Your task to perform on an android device: What is the capital of Spain? Image 0: 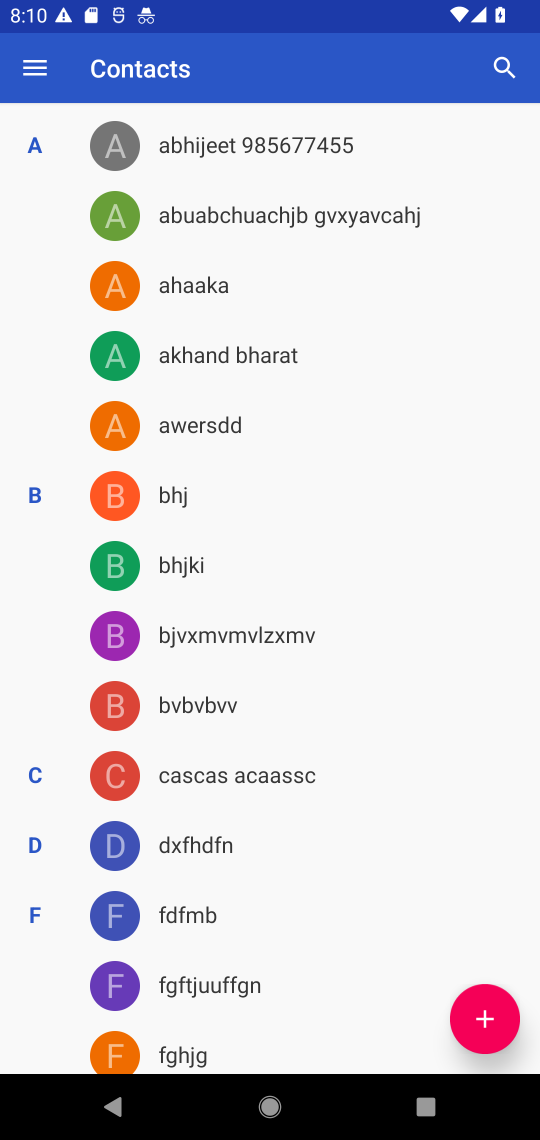
Step 0: press home button
Your task to perform on an android device: What is the capital of Spain? Image 1: 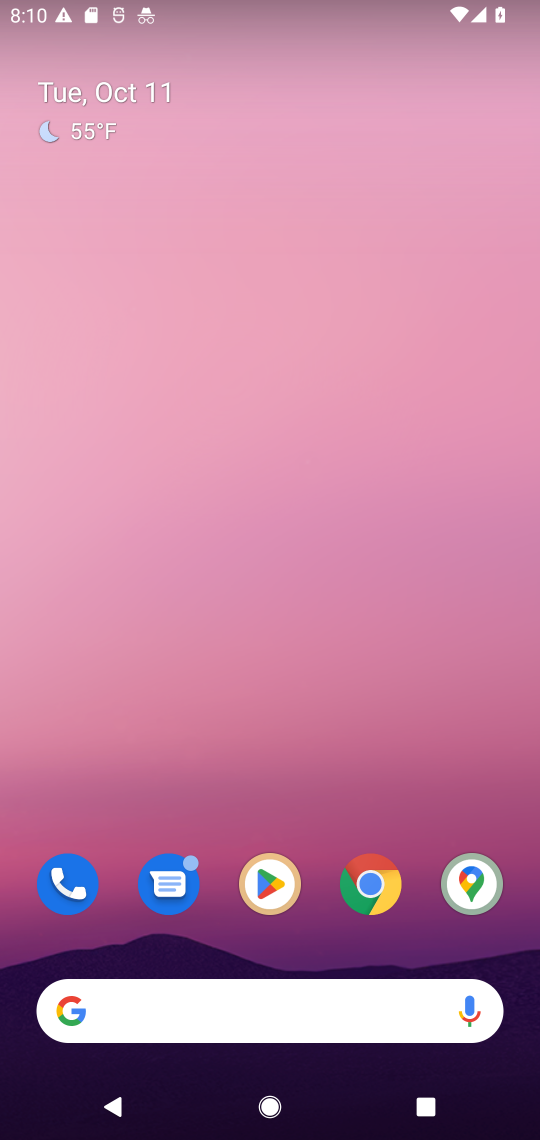
Step 1: drag from (309, 968) to (324, 75)
Your task to perform on an android device: What is the capital of Spain? Image 2: 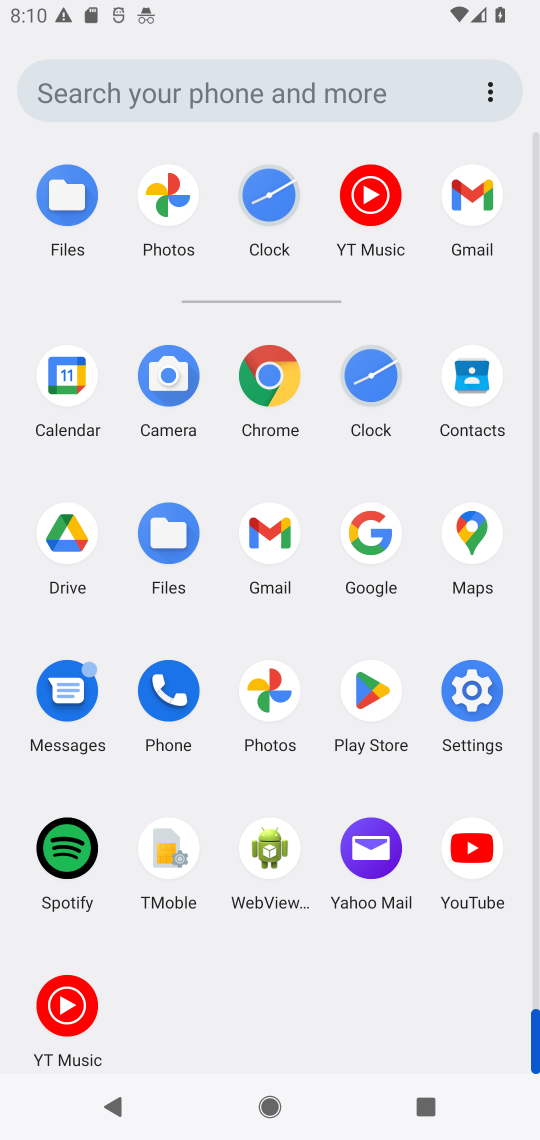
Step 2: click (382, 537)
Your task to perform on an android device: What is the capital of Spain? Image 3: 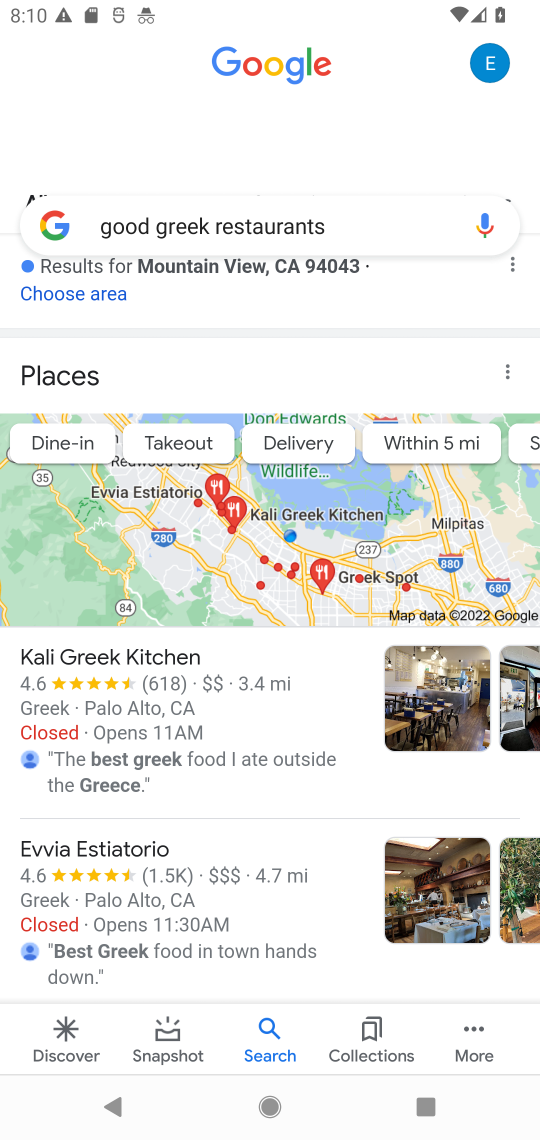
Step 3: click (354, 231)
Your task to perform on an android device: What is the capital of Spain? Image 4: 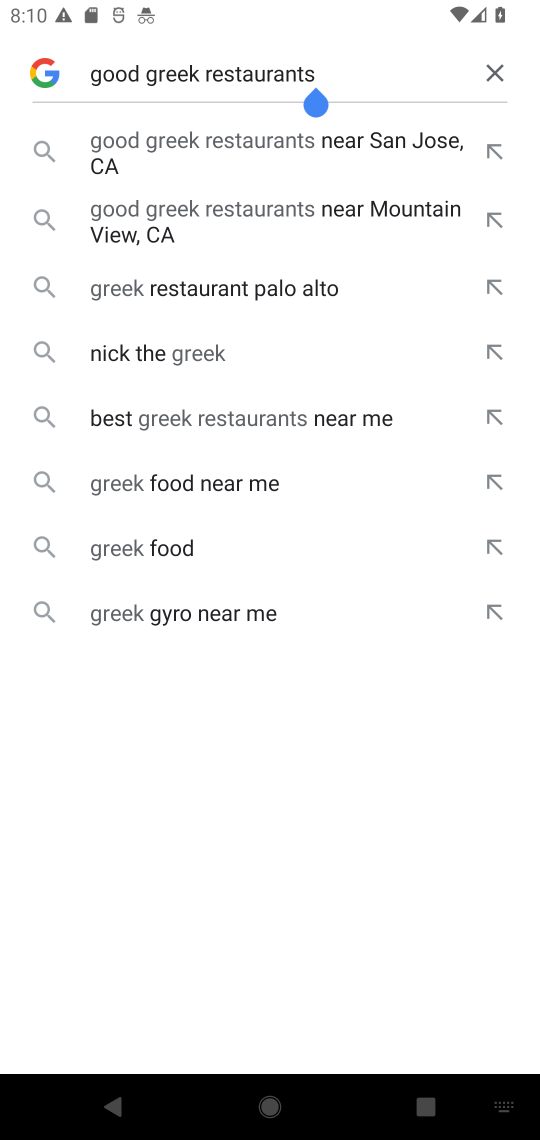
Step 4: click (500, 74)
Your task to perform on an android device: What is the capital of Spain? Image 5: 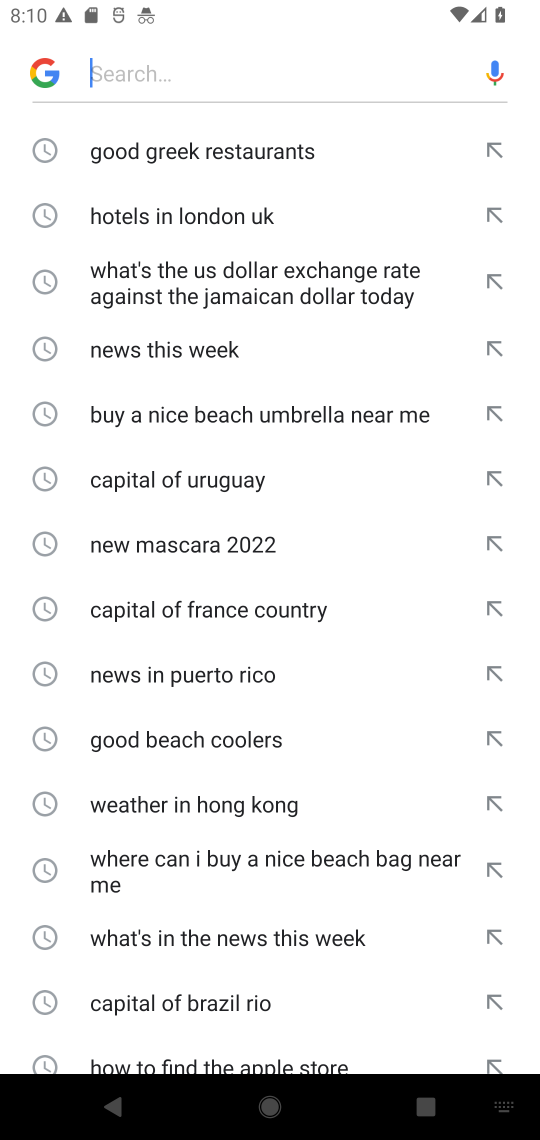
Step 5: type "capital of Spain?"
Your task to perform on an android device: What is the capital of Spain? Image 6: 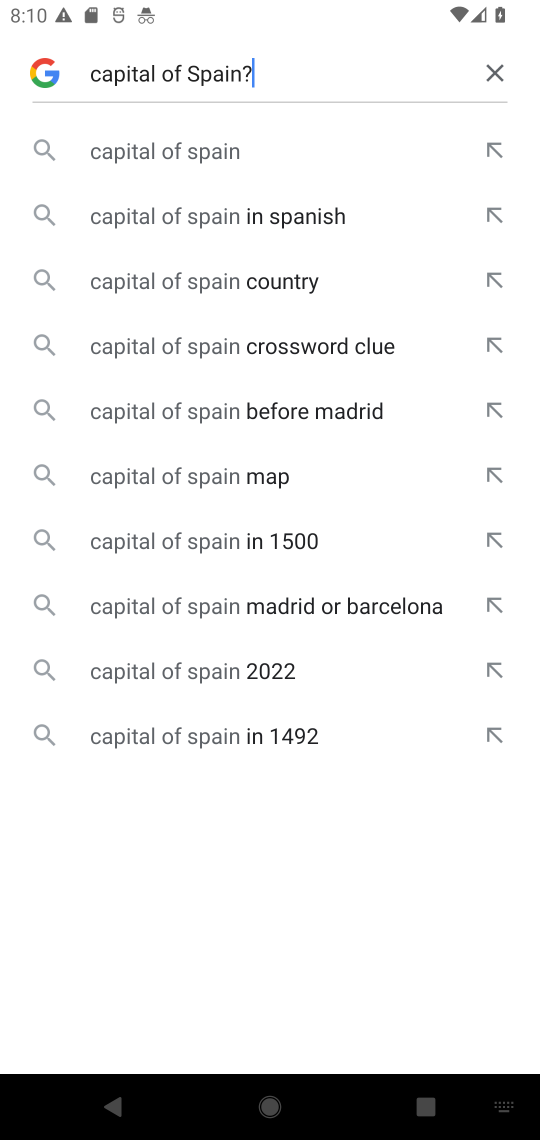
Step 6: type ""
Your task to perform on an android device: What is the capital of Spain? Image 7: 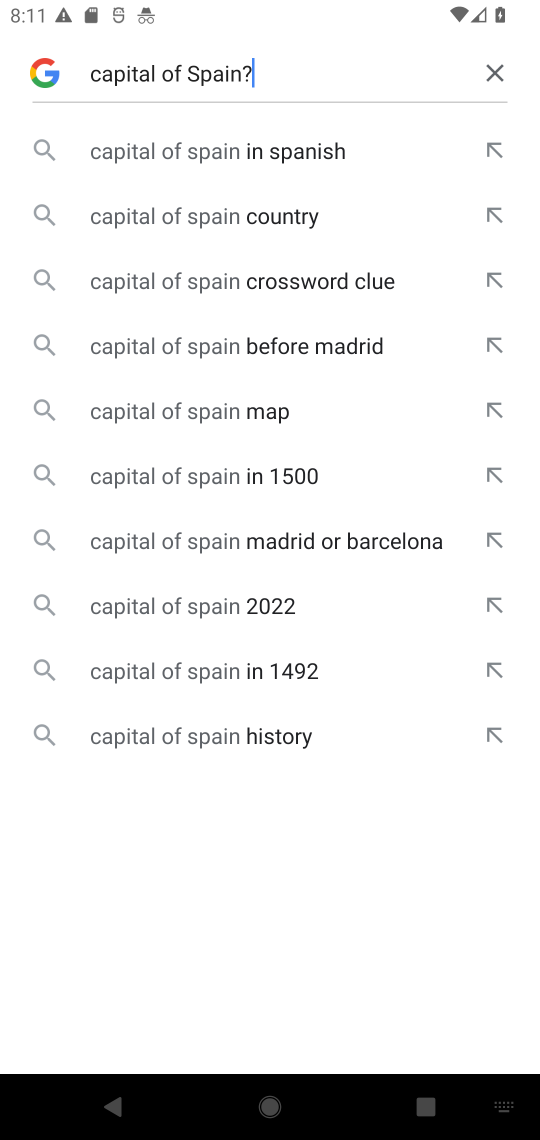
Step 7: click (190, 217)
Your task to perform on an android device: What is the capital of Spain? Image 8: 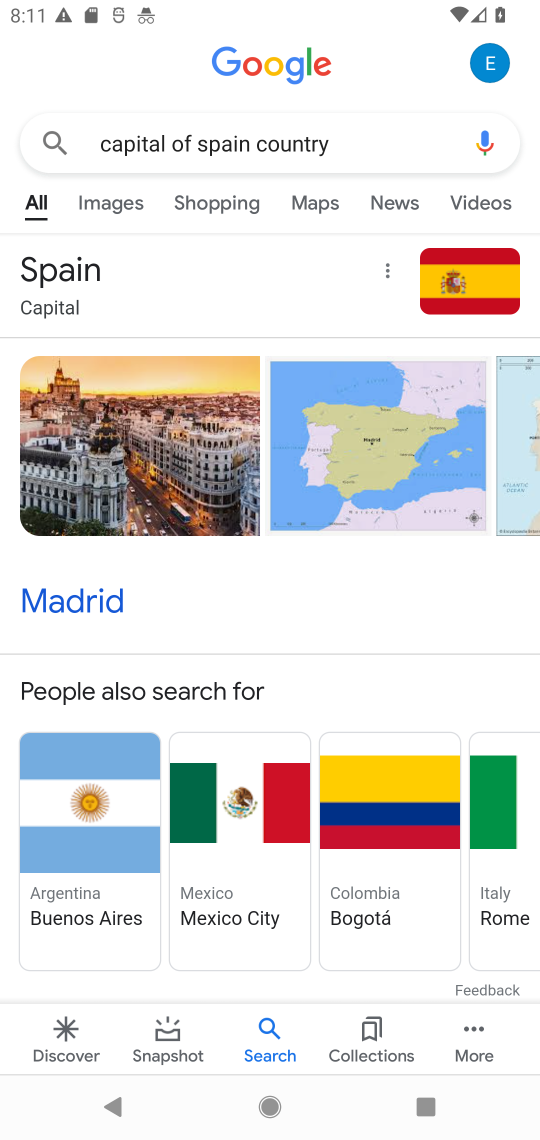
Step 8: task complete